Your task to perform on an android device: toggle show notifications on the lock screen Image 0: 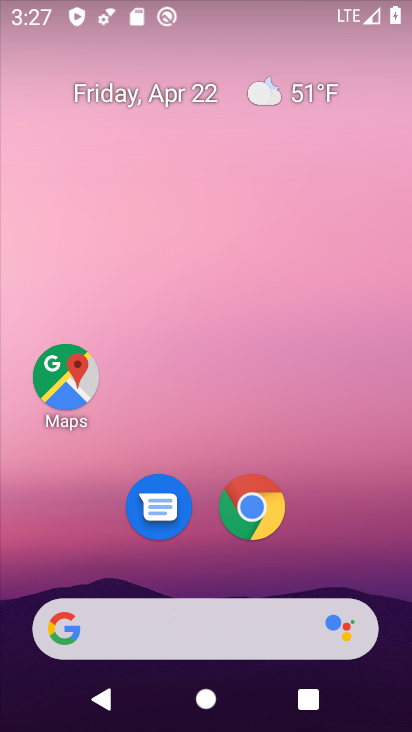
Step 0: drag from (230, 592) to (300, 1)
Your task to perform on an android device: toggle show notifications on the lock screen Image 1: 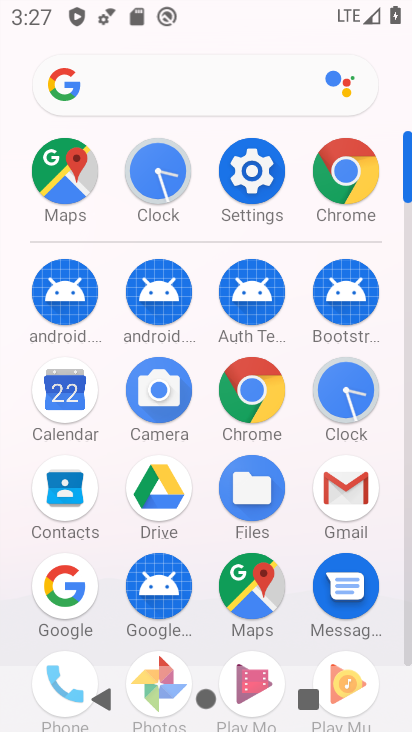
Step 1: click (239, 185)
Your task to perform on an android device: toggle show notifications on the lock screen Image 2: 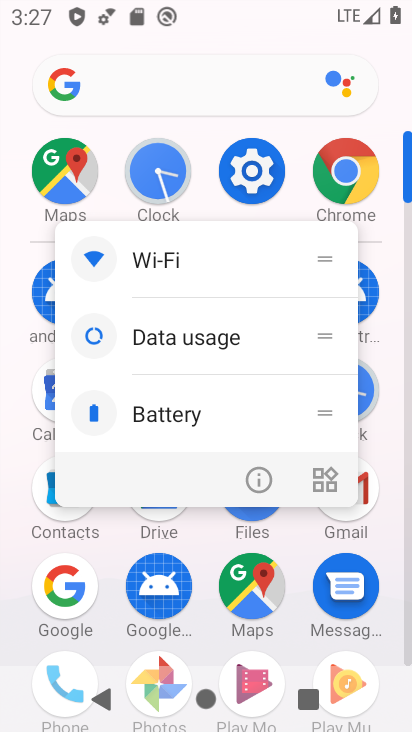
Step 2: click (233, 185)
Your task to perform on an android device: toggle show notifications on the lock screen Image 3: 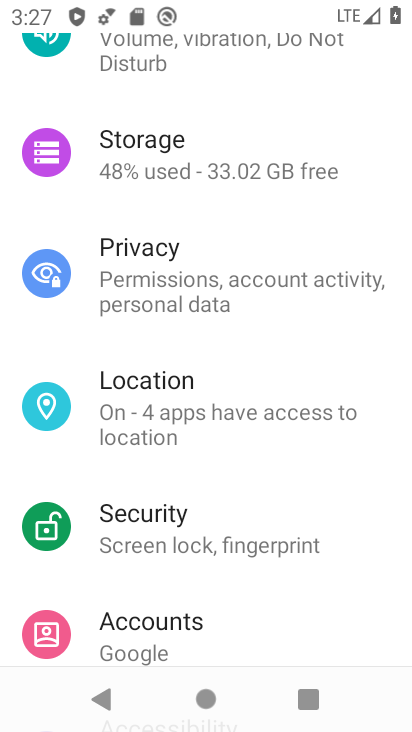
Step 3: drag from (212, 211) to (231, 639)
Your task to perform on an android device: toggle show notifications on the lock screen Image 4: 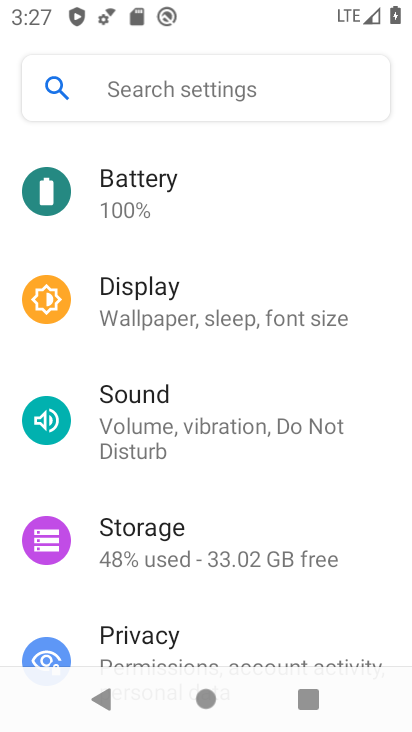
Step 4: drag from (202, 202) to (195, 452)
Your task to perform on an android device: toggle show notifications on the lock screen Image 5: 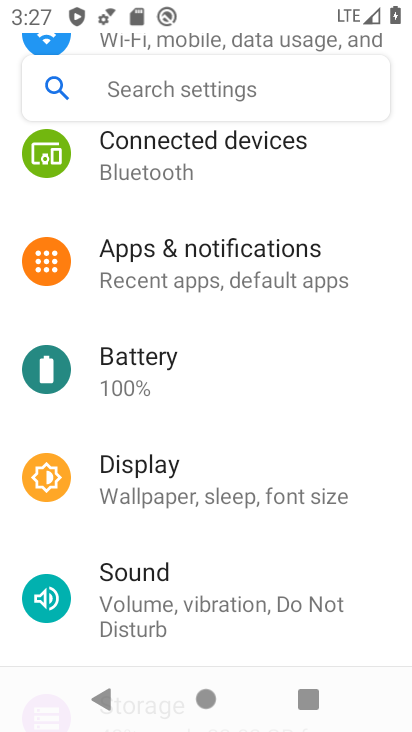
Step 5: click (207, 284)
Your task to perform on an android device: toggle show notifications on the lock screen Image 6: 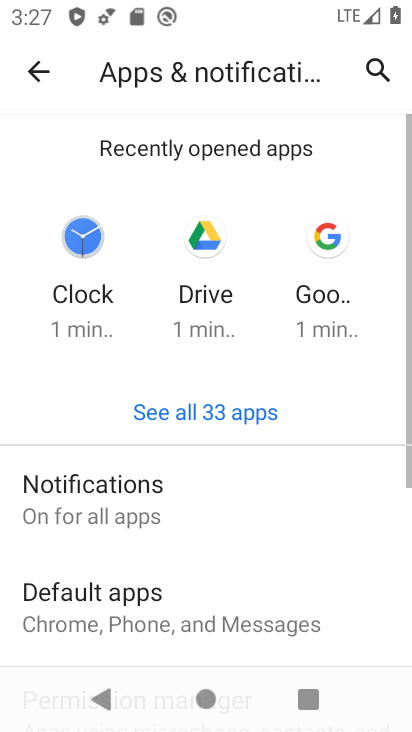
Step 6: click (218, 496)
Your task to perform on an android device: toggle show notifications on the lock screen Image 7: 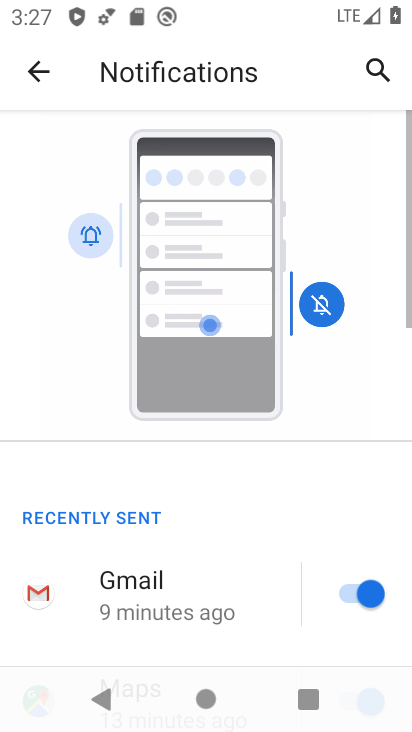
Step 7: drag from (155, 629) to (107, 15)
Your task to perform on an android device: toggle show notifications on the lock screen Image 8: 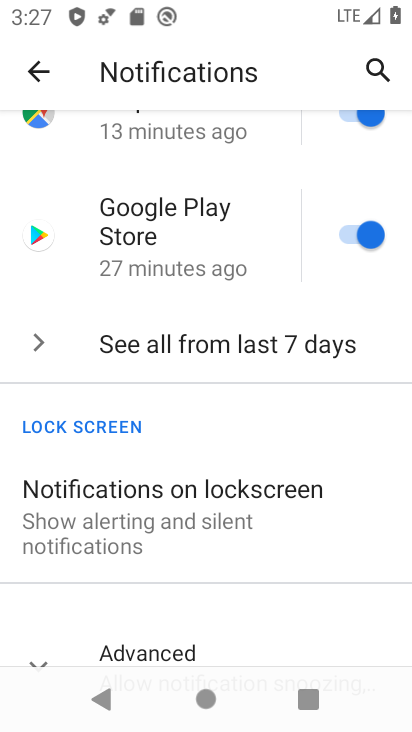
Step 8: drag from (189, 573) to (192, 524)
Your task to perform on an android device: toggle show notifications on the lock screen Image 9: 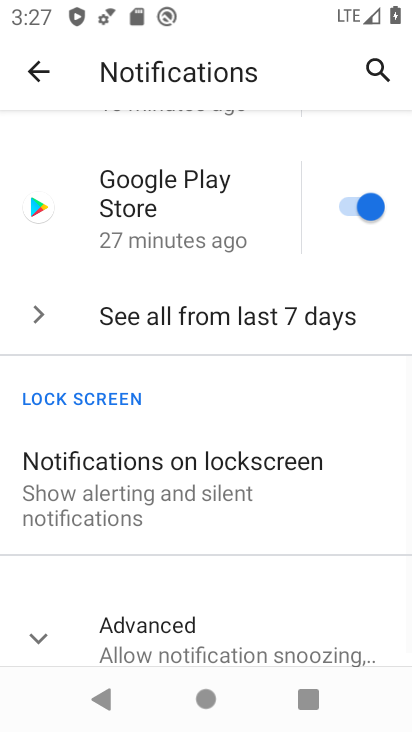
Step 9: click (164, 490)
Your task to perform on an android device: toggle show notifications on the lock screen Image 10: 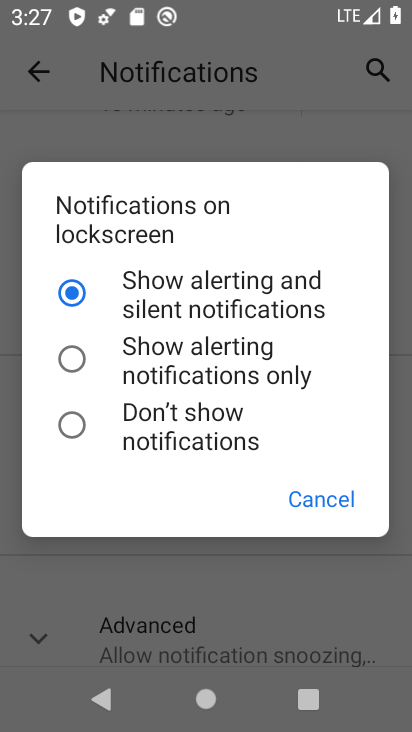
Step 10: click (113, 454)
Your task to perform on an android device: toggle show notifications on the lock screen Image 11: 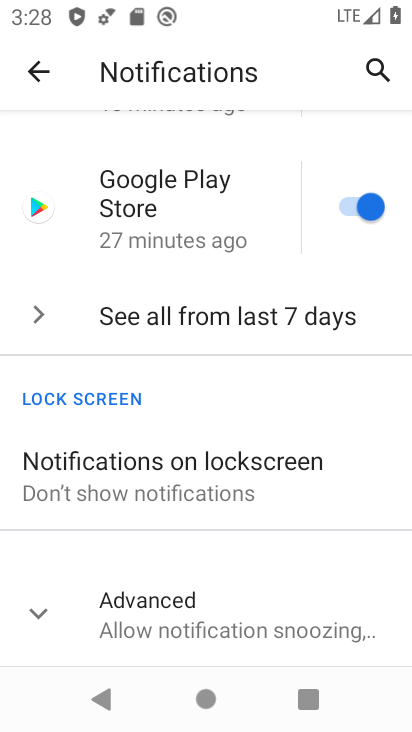
Step 11: task complete